Your task to perform on an android device: open device folders in google photos Image 0: 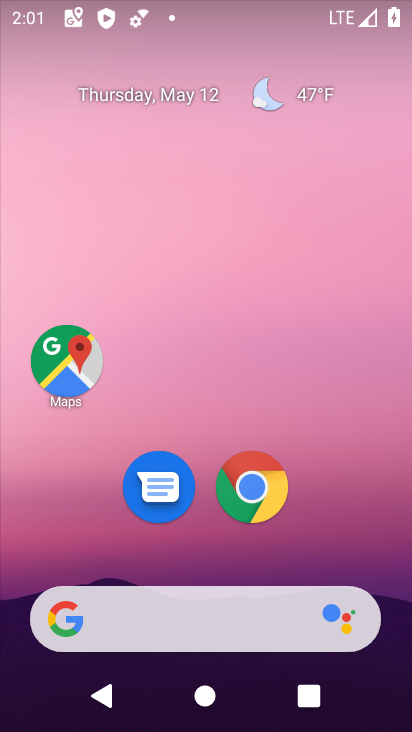
Step 0: drag from (318, 526) to (193, 199)
Your task to perform on an android device: open device folders in google photos Image 1: 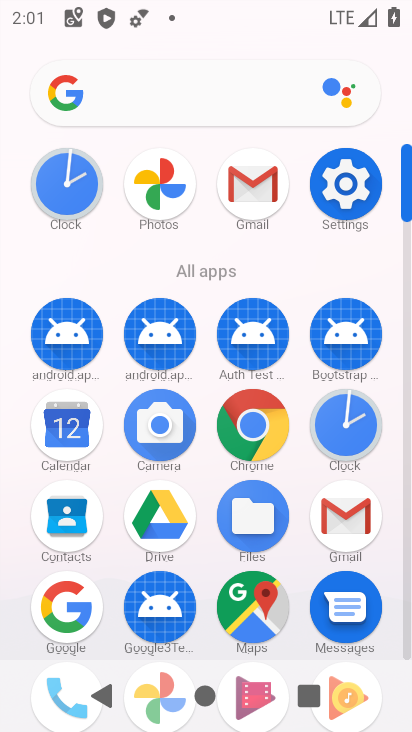
Step 1: drag from (209, 622) to (173, 348)
Your task to perform on an android device: open device folders in google photos Image 2: 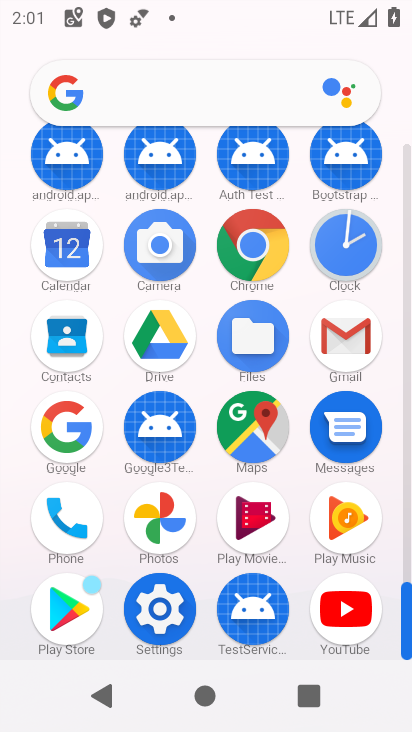
Step 2: click (145, 512)
Your task to perform on an android device: open device folders in google photos Image 3: 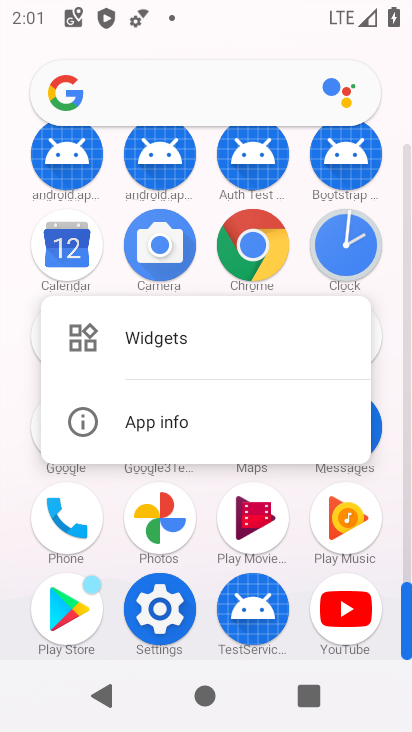
Step 3: click (177, 511)
Your task to perform on an android device: open device folders in google photos Image 4: 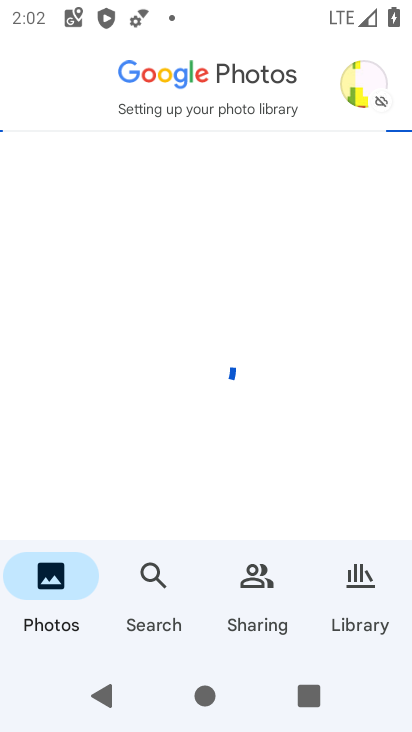
Step 4: click (246, 596)
Your task to perform on an android device: open device folders in google photos Image 5: 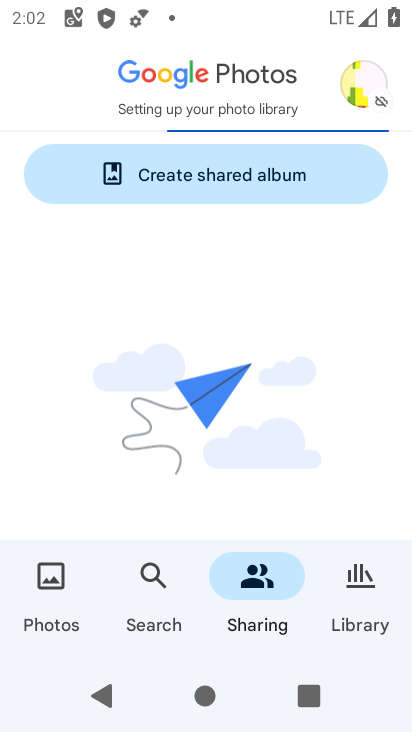
Step 5: click (366, 581)
Your task to perform on an android device: open device folders in google photos Image 6: 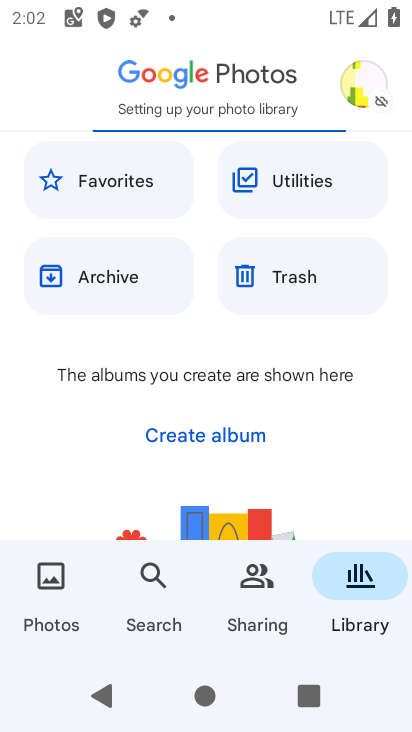
Step 6: task complete